Your task to perform on an android device: Go to battery settings Image 0: 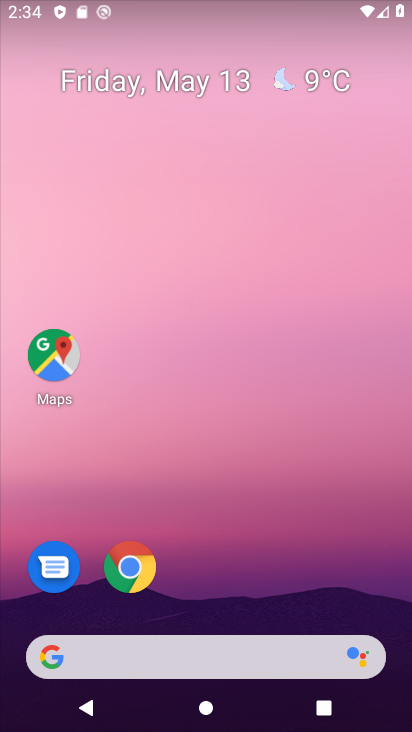
Step 0: drag from (271, 592) to (278, 13)
Your task to perform on an android device: Go to battery settings Image 1: 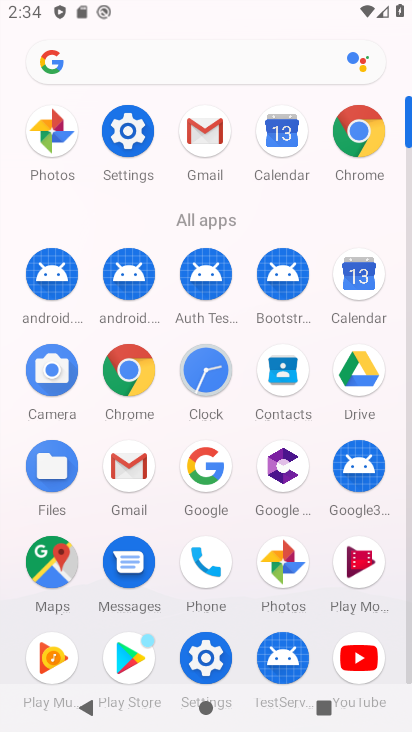
Step 1: click (130, 135)
Your task to perform on an android device: Go to battery settings Image 2: 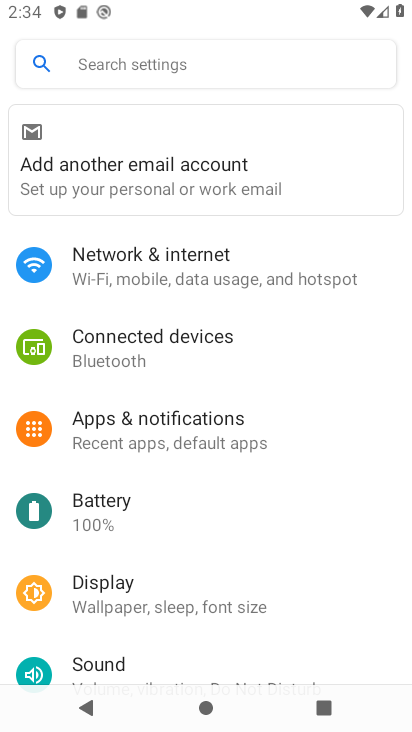
Step 2: click (97, 506)
Your task to perform on an android device: Go to battery settings Image 3: 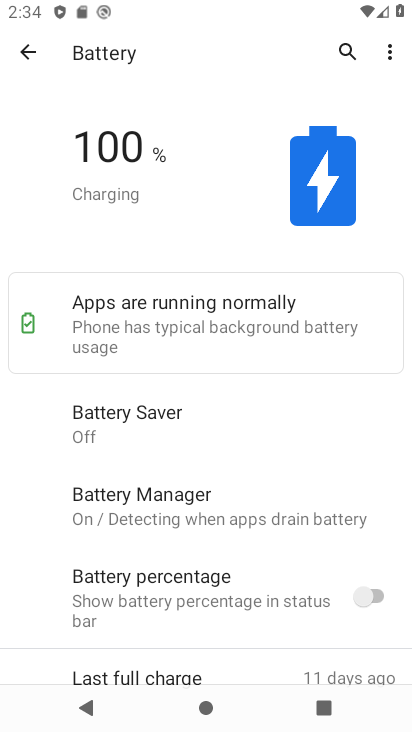
Step 3: task complete